Your task to perform on an android device: turn off wifi Image 0: 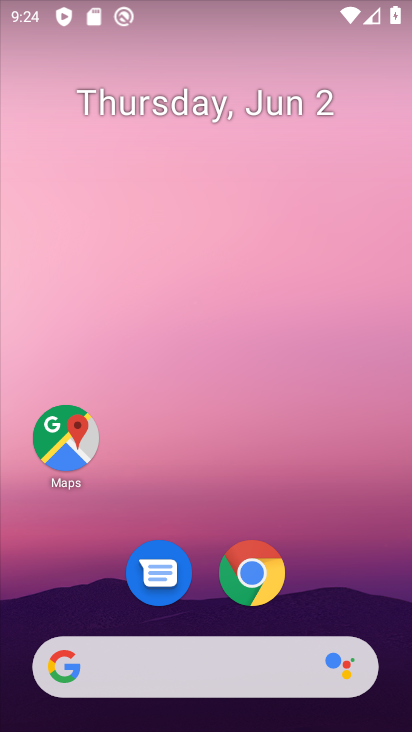
Step 0: drag from (356, 560) to (140, 193)
Your task to perform on an android device: turn off wifi Image 1: 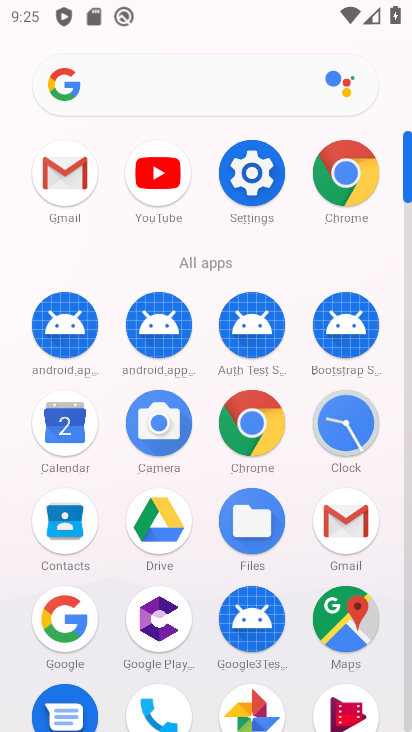
Step 1: click (246, 167)
Your task to perform on an android device: turn off wifi Image 2: 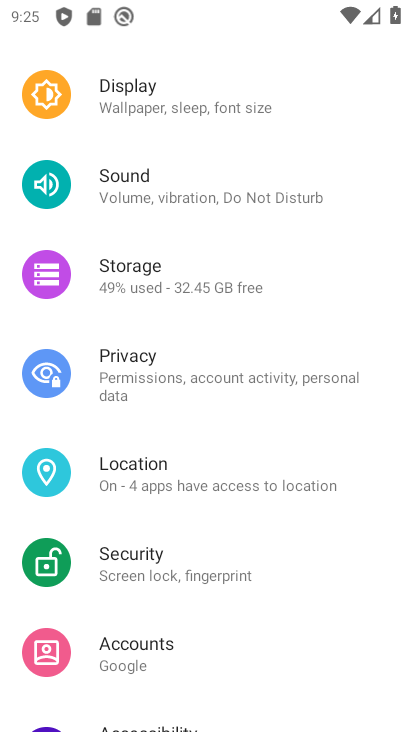
Step 2: drag from (225, 125) to (282, 579)
Your task to perform on an android device: turn off wifi Image 3: 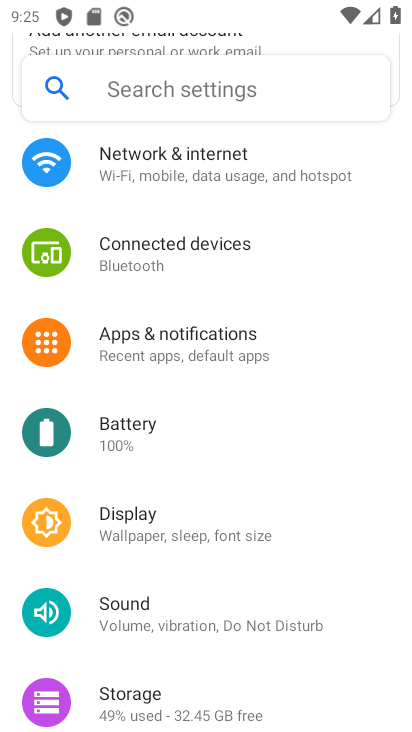
Step 3: click (177, 180)
Your task to perform on an android device: turn off wifi Image 4: 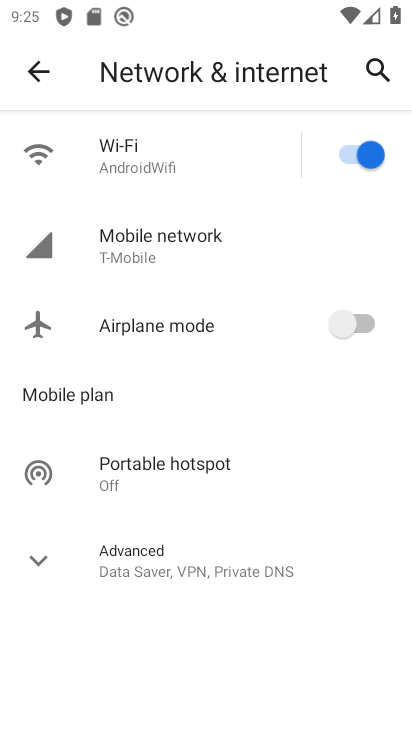
Step 4: click (329, 147)
Your task to perform on an android device: turn off wifi Image 5: 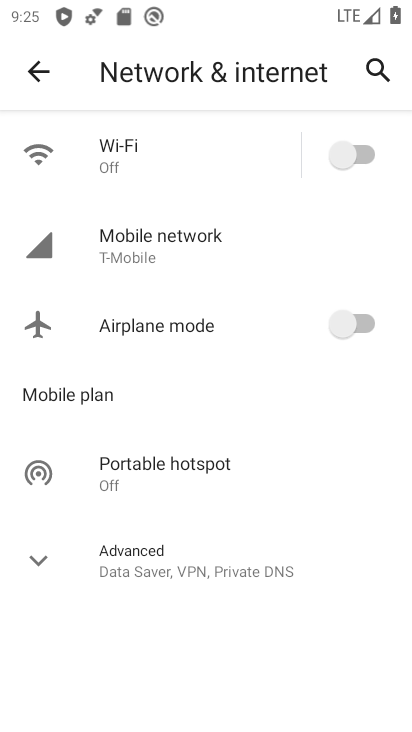
Step 5: task complete